Your task to perform on an android device: check google app version Image 0: 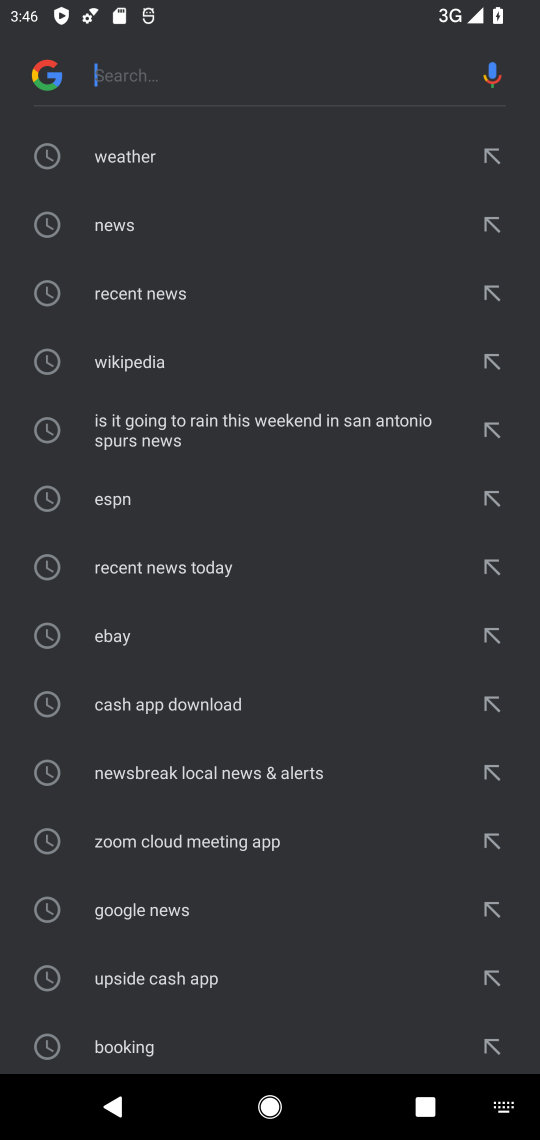
Step 0: press home button
Your task to perform on an android device: check google app version Image 1: 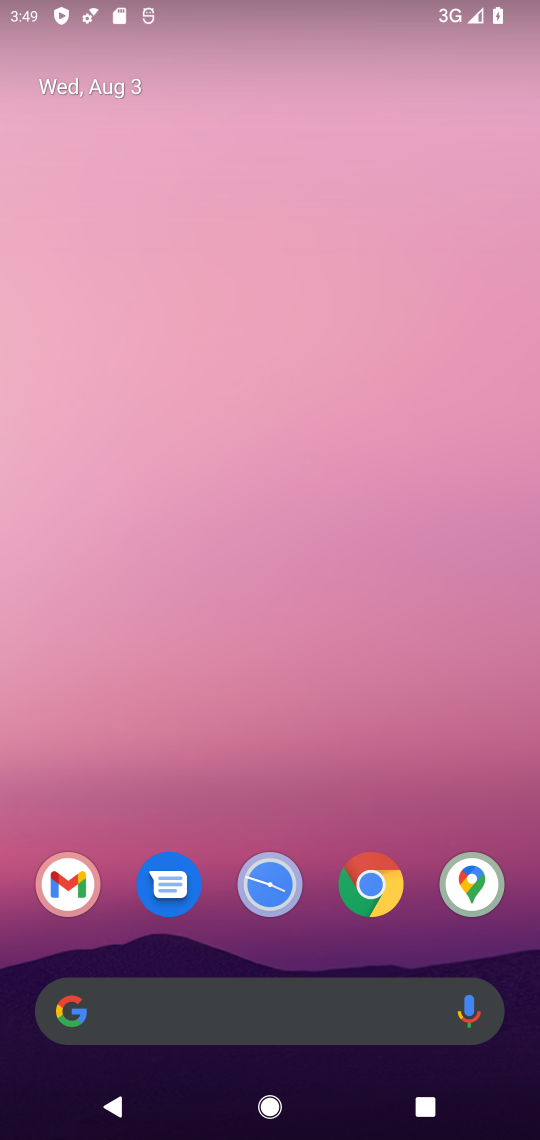
Step 1: click (365, 896)
Your task to perform on an android device: check google app version Image 2: 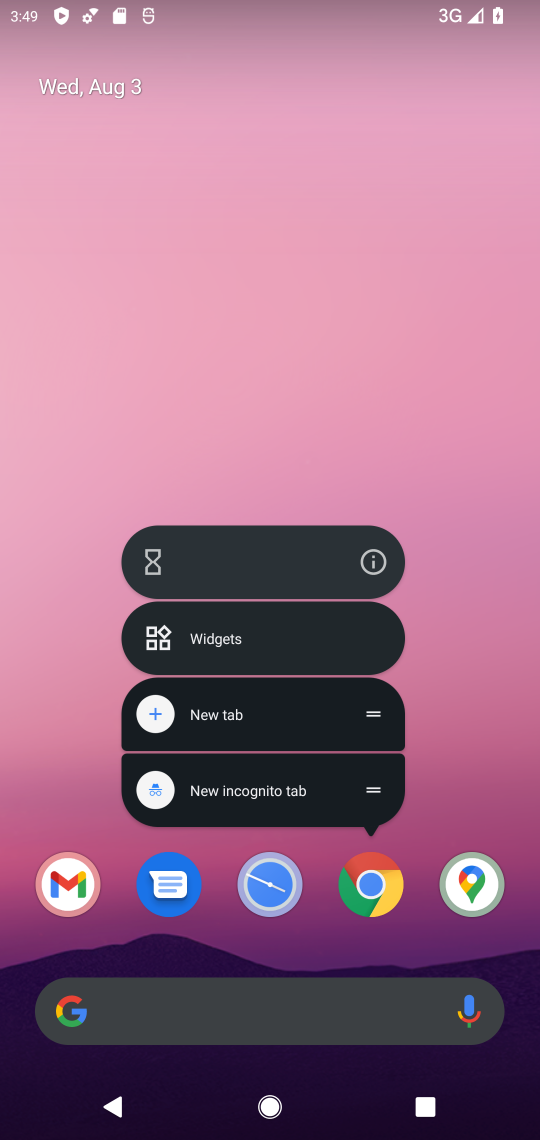
Step 2: click (359, 573)
Your task to perform on an android device: check google app version Image 3: 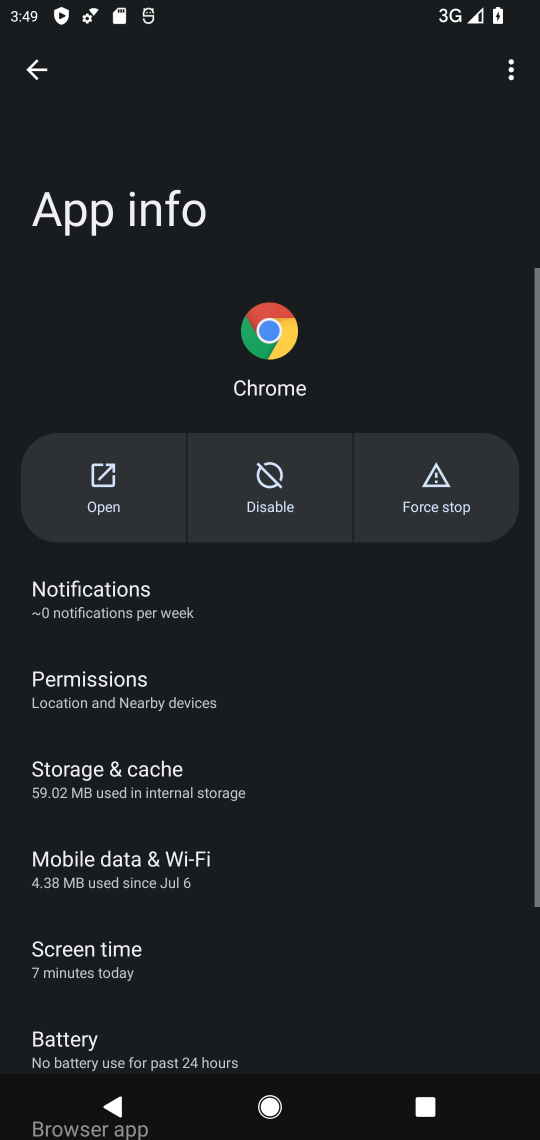
Step 3: task complete